Your task to perform on an android device: Open ESPN.com Image 0: 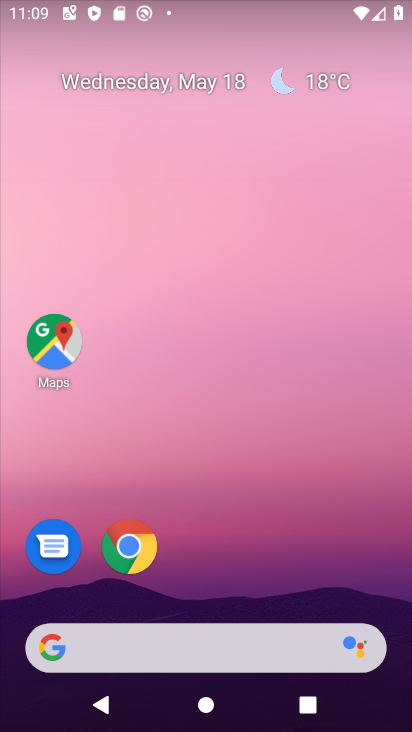
Step 0: click (124, 542)
Your task to perform on an android device: Open ESPN.com Image 1: 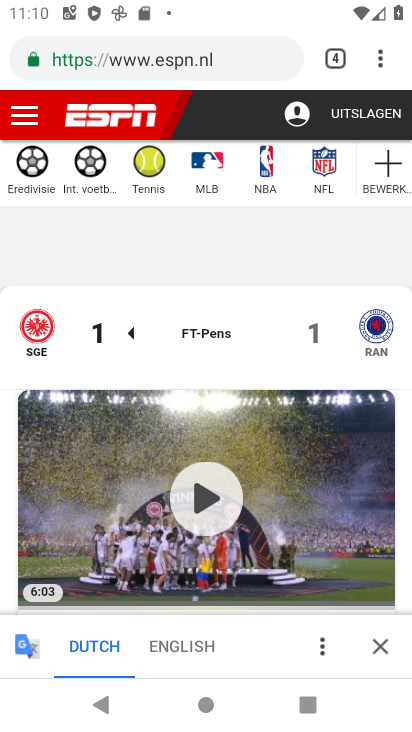
Step 1: task complete